Your task to perform on an android device: Open Maps and search for coffee Image 0: 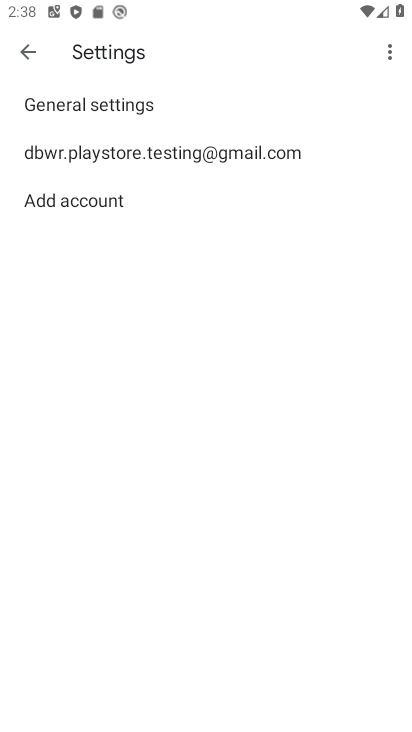
Step 0: press home button
Your task to perform on an android device: Open Maps and search for coffee Image 1: 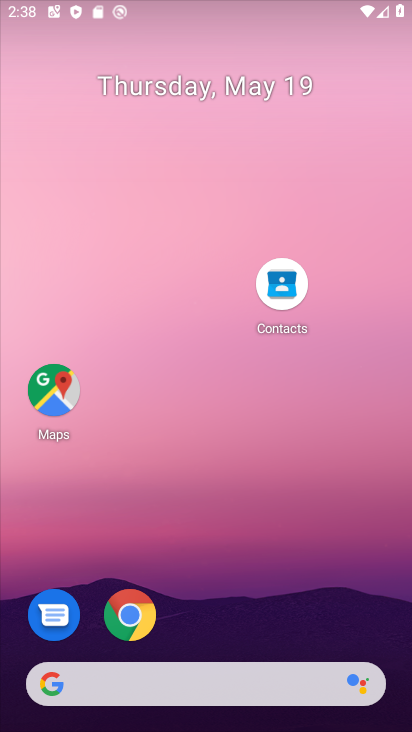
Step 1: drag from (249, 644) to (276, 117)
Your task to perform on an android device: Open Maps and search for coffee Image 2: 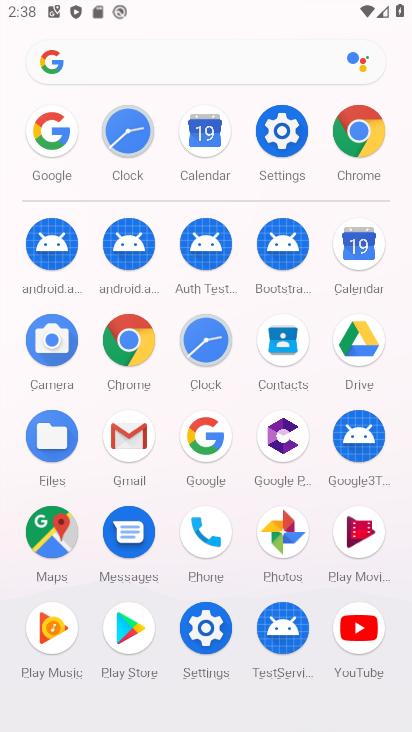
Step 2: click (54, 549)
Your task to perform on an android device: Open Maps and search for coffee Image 3: 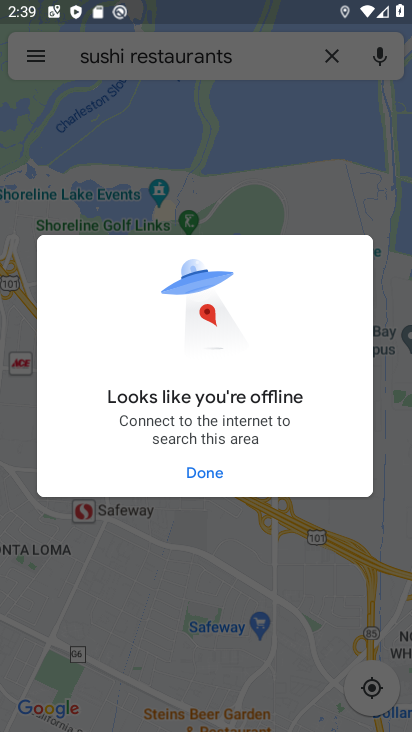
Step 3: click (170, 494)
Your task to perform on an android device: Open Maps and search for coffee Image 4: 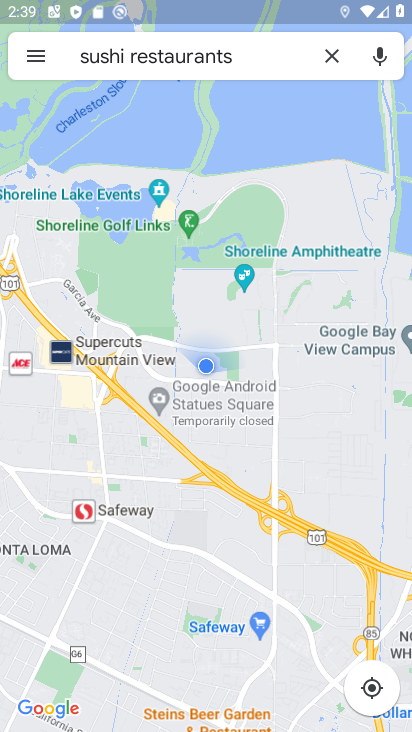
Step 4: click (341, 51)
Your task to perform on an android device: Open Maps and search for coffee Image 5: 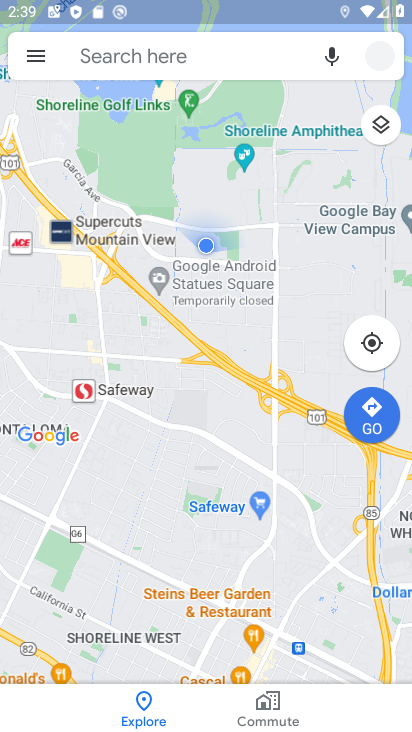
Step 5: click (275, 60)
Your task to perform on an android device: Open Maps and search for coffee Image 6: 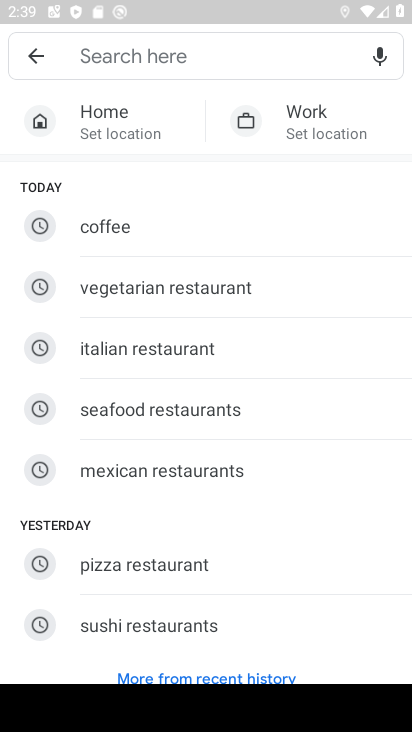
Step 6: click (167, 223)
Your task to perform on an android device: Open Maps and search for coffee Image 7: 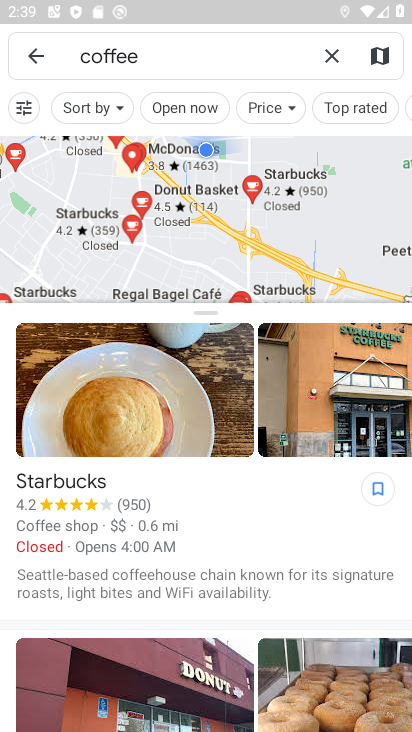
Step 7: task complete